Your task to perform on an android device: See recent photos Image 0: 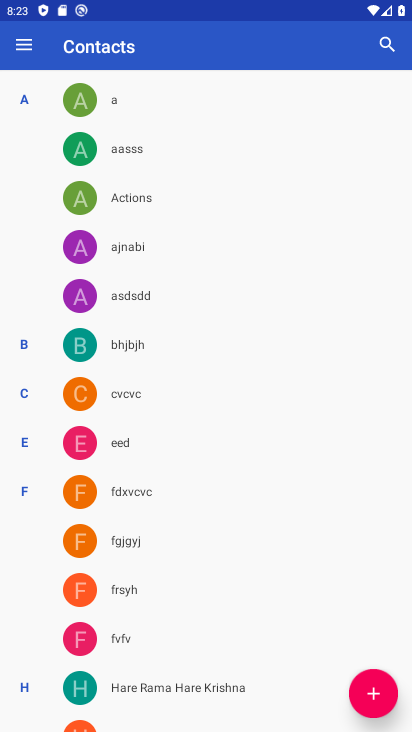
Step 0: press home button
Your task to perform on an android device: See recent photos Image 1: 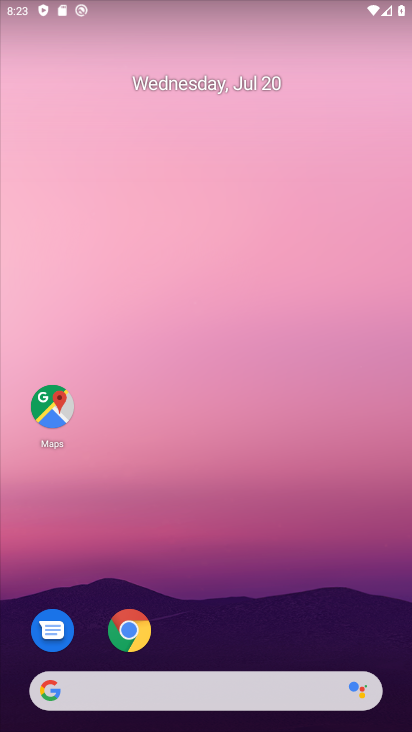
Step 1: drag from (329, 561) to (268, 0)
Your task to perform on an android device: See recent photos Image 2: 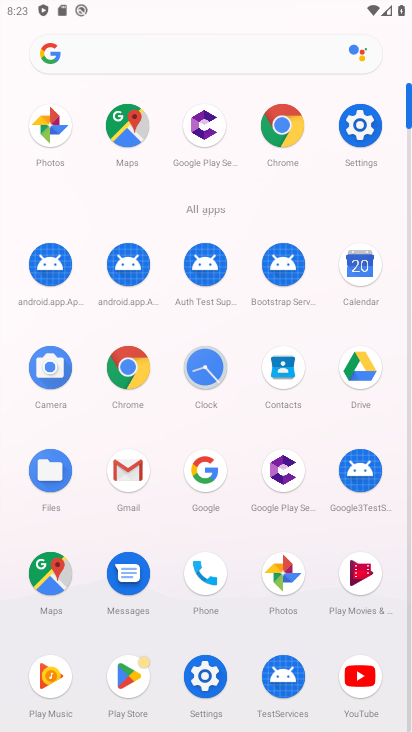
Step 2: click (279, 573)
Your task to perform on an android device: See recent photos Image 3: 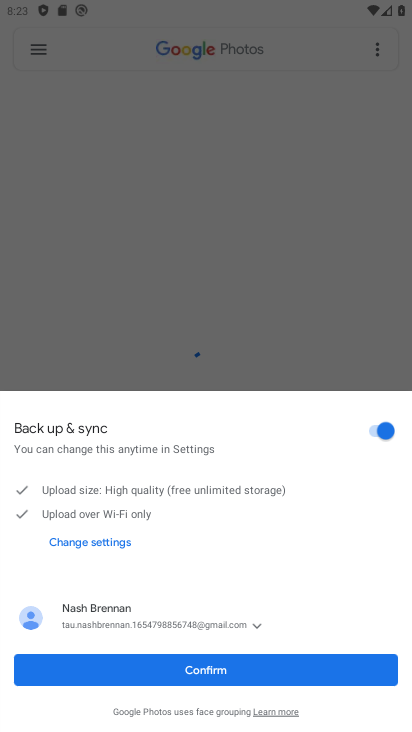
Step 3: click (251, 675)
Your task to perform on an android device: See recent photos Image 4: 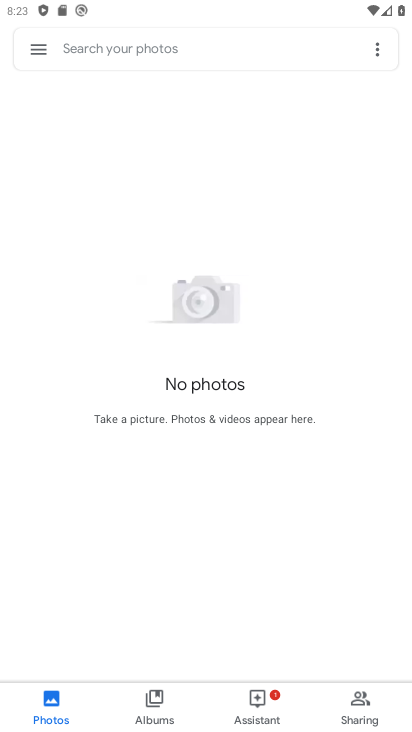
Step 4: task complete